Your task to perform on an android device: turn off picture-in-picture Image 0: 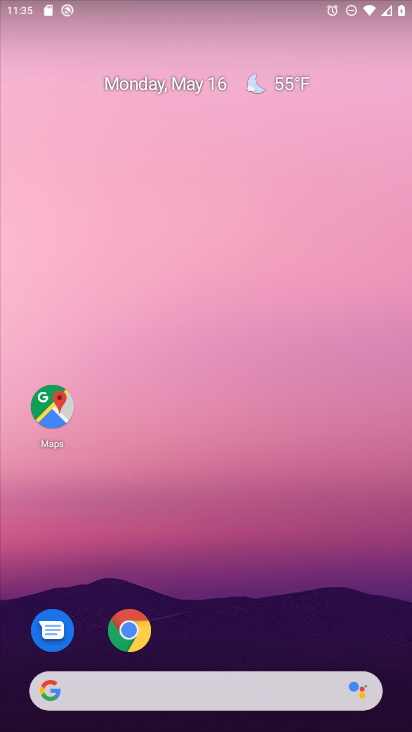
Step 0: click (138, 627)
Your task to perform on an android device: turn off picture-in-picture Image 1: 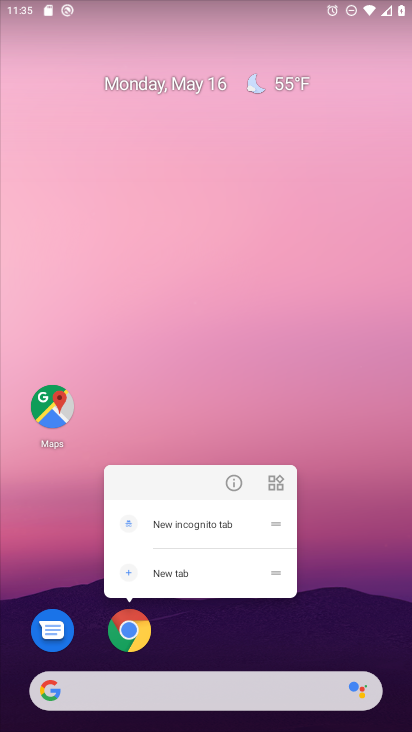
Step 1: click (228, 489)
Your task to perform on an android device: turn off picture-in-picture Image 2: 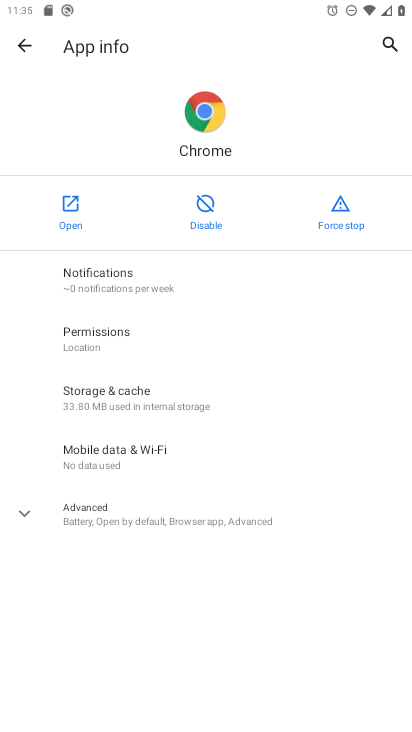
Step 2: click (116, 516)
Your task to perform on an android device: turn off picture-in-picture Image 3: 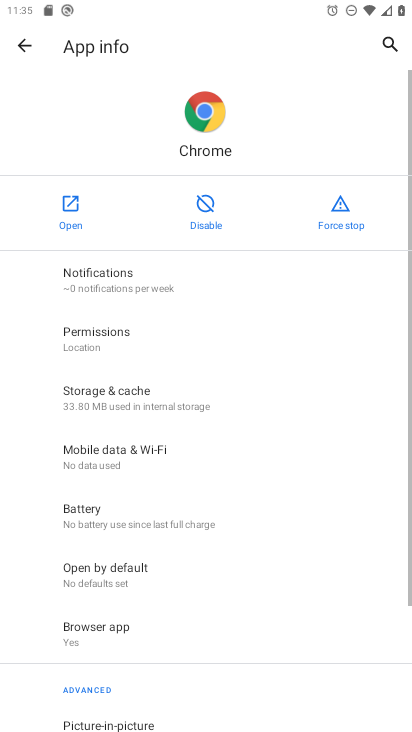
Step 3: drag from (157, 574) to (231, 239)
Your task to perform on an android device: turn off picture-in-picture Image 4: 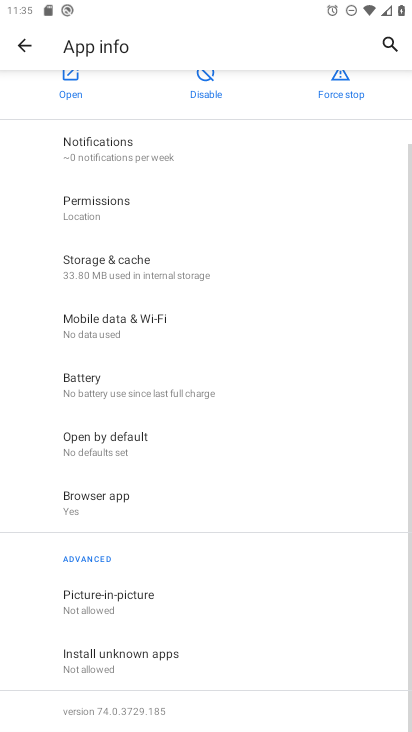
Step 4: click (163, 603)
Your task to perform on an android device: turn off picture-in-picture Image 5: 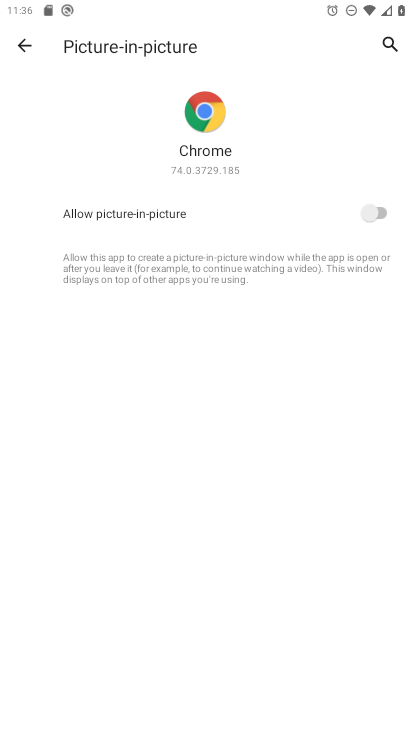
Step 5: task complete